Your task to perform on an android device: When is my next appointment? Image 0: 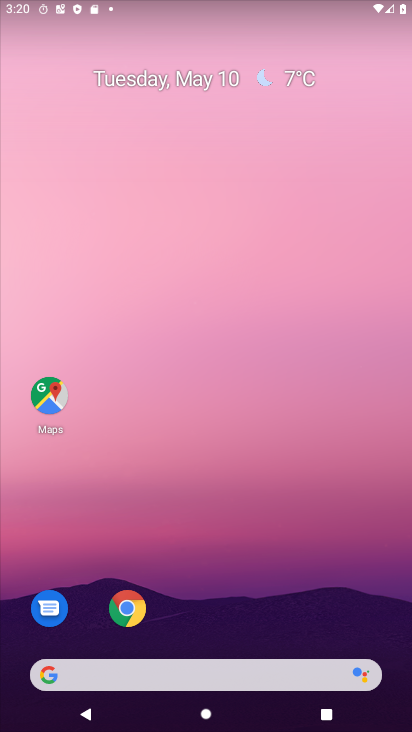
Step 0: drag from (333, 641) to (373, 1)
Your task to perform on an android device: When is my next appointment? Image 1: 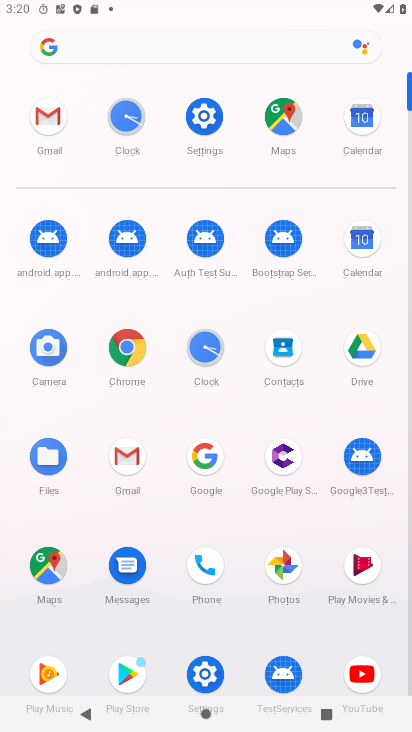
Step 1: click (363, 123)
Your task to perform on an android device: When is my next appointment? Image 2: 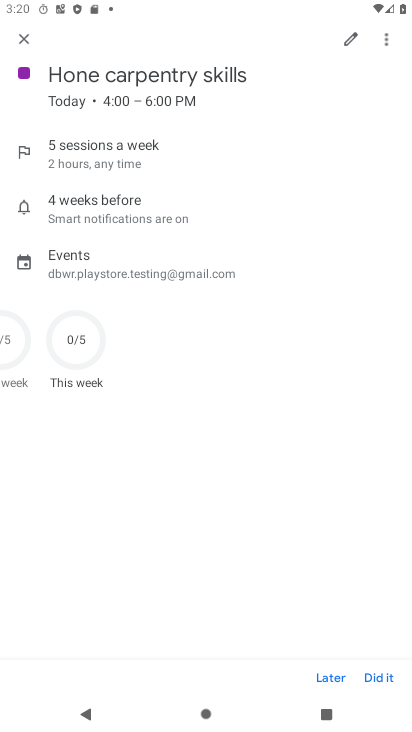
Step 2: click (21, 43)
Your task to perform on an android device: When is my next appointment? Image 3: 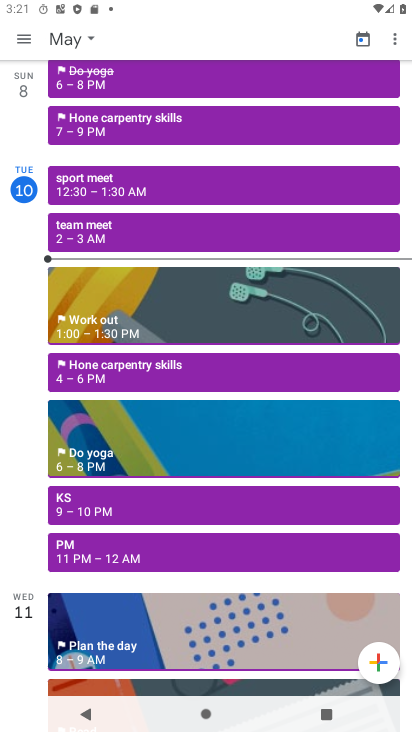
Step 3: click (119, 380)
Your task to perform on an android device: When is my next appointment? Image 4: 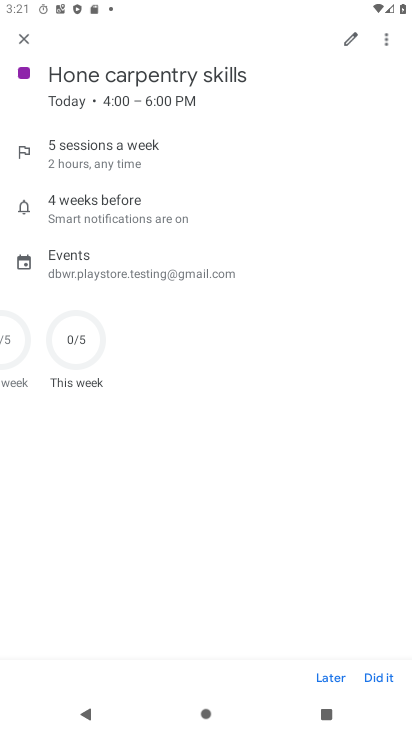
Step 4: task complete